Your task to perform on an android device: Search for sushi restaurants on Maps Image 0: 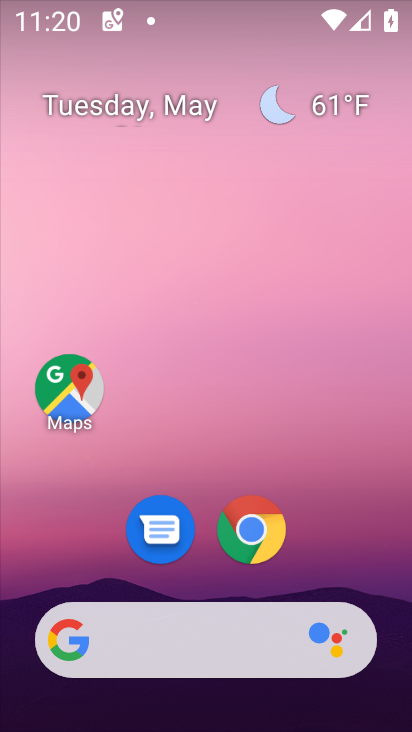
Step 0: click (69, 391)
Your task to perform on an android device: Search for sushi restaurants on Maps Image 1: 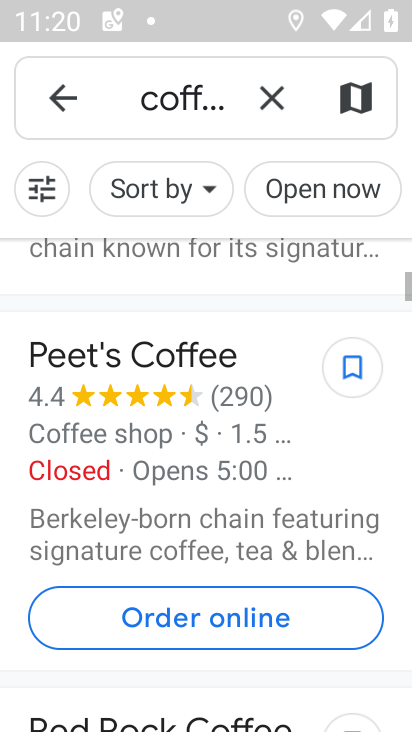
Step 1: click (273, 107)
Your task to perform on an android device: Search for sushi restaurants on Maps Image 2: 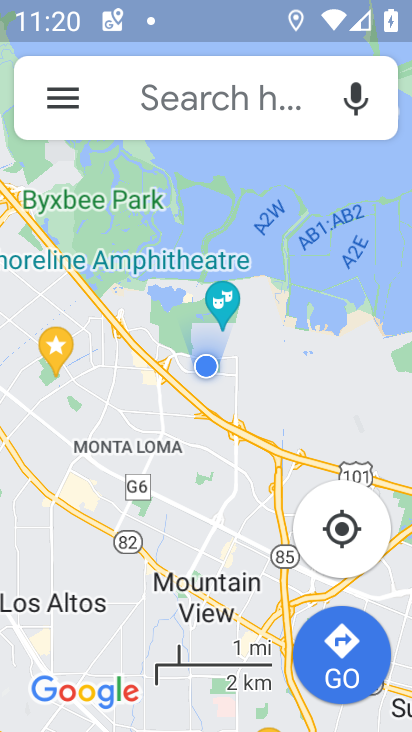
Step 2: click (273, 107)
Your task to perform on an android device: Search for sushi restaurants on Maps Image 3: 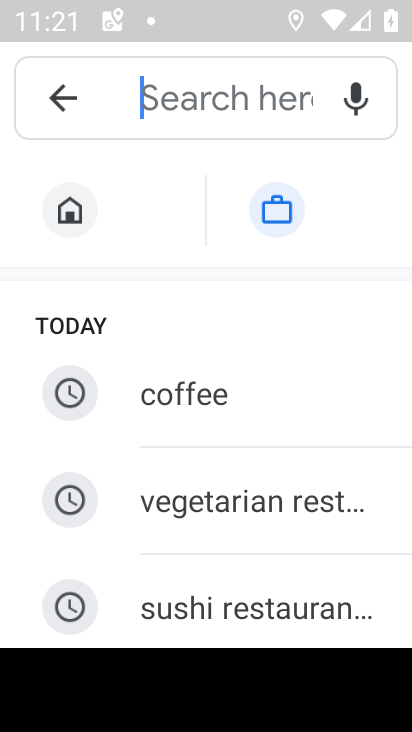
Step 3: click (233, 608)
Your task to perform on an android device: Search for sushi restaurants on Maps Image 4: 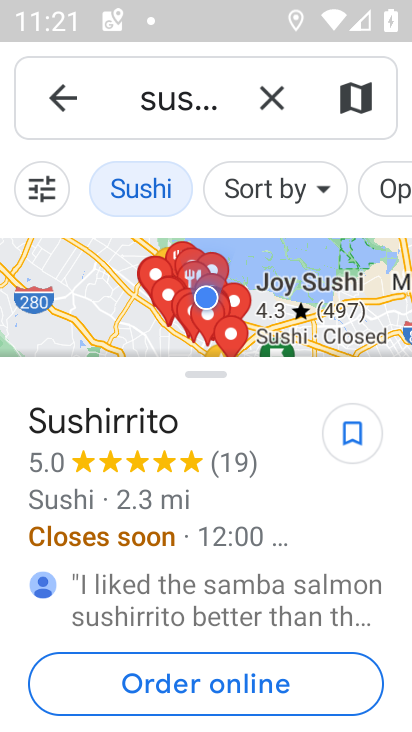
Step 4: task complete